Your task to perform on an android device: What's the weather going to be this weekend? Image 0: 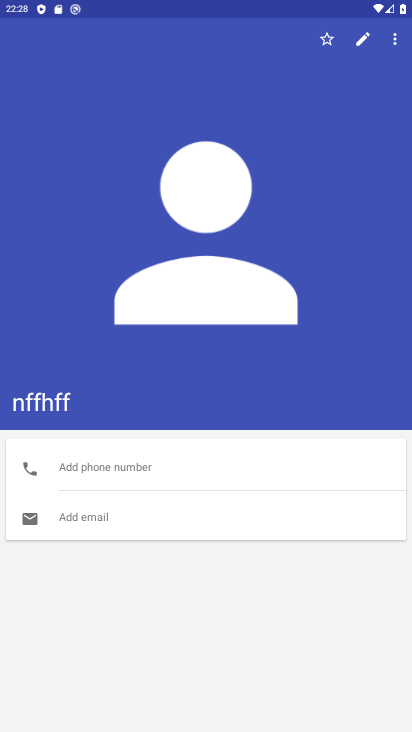
Step 0: press home button
Your task to perform on an android device: What's the weather going to be this weekend? Image 1: 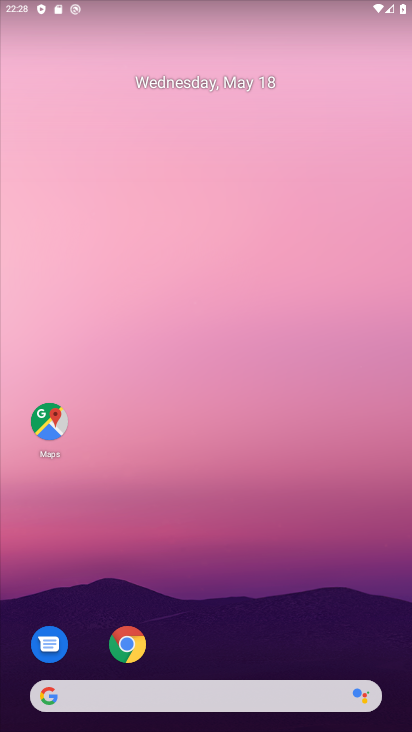
Step 1: click (132, 643)
Your task to perform on an android device: What's the weather going to be this weekend? Image 2: 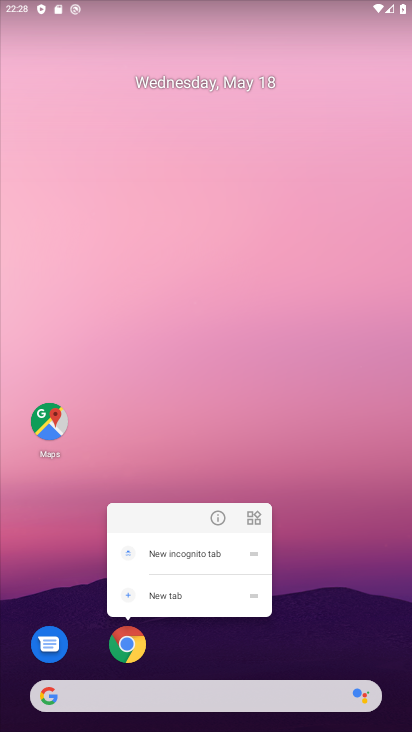
Step 2: click (132, 643)
Your task to perform on an android device: What's the weather going to be this weekend? Image 3: 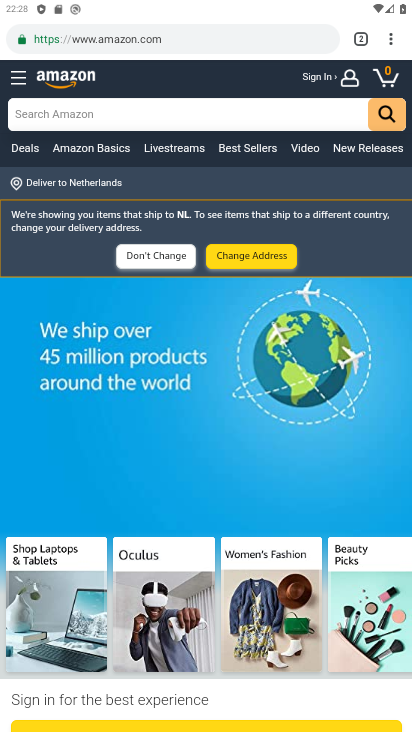
Step 3: click (238, 43)
Your task to perform on an android device: What's the weather going to be this weekend? Image 4: 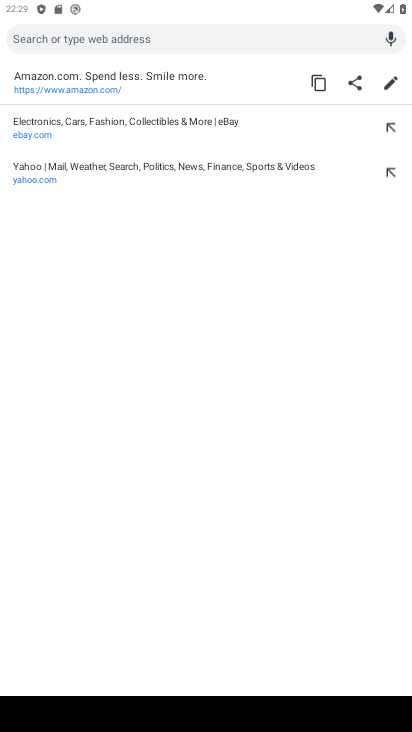
Step 4: type "weather"
Your task to perform on an android device: What's the weather going to be this weekend? Image 5: 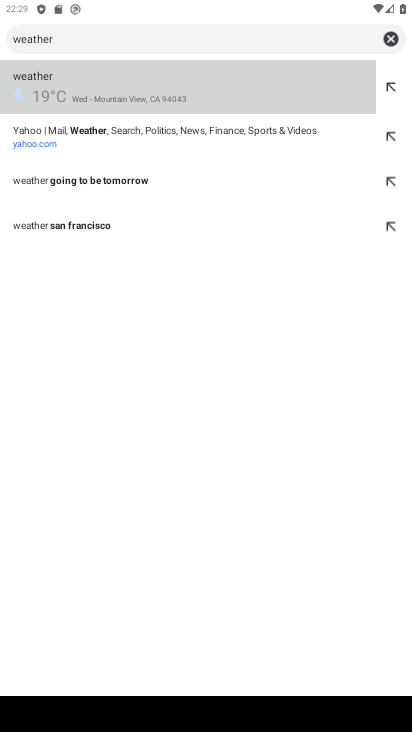
Step 5: click (45, 75)
Your task to perform on an android device: What's the weather going to be this weekend? Image 6: 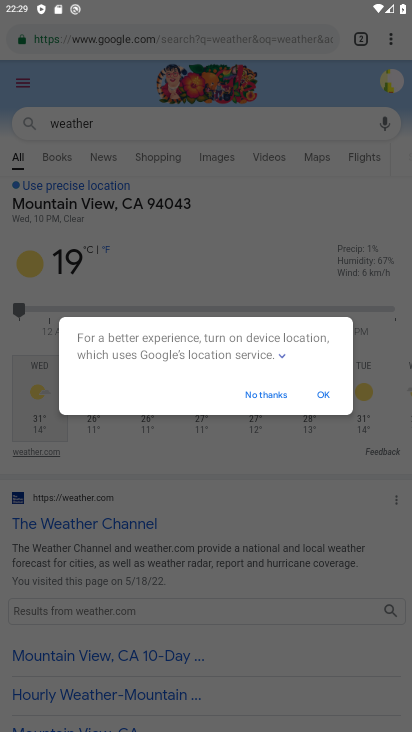
Step 6: click (335, 393)
Your task to perform on an android device: What's the weather going to be this weekend? Image 7: 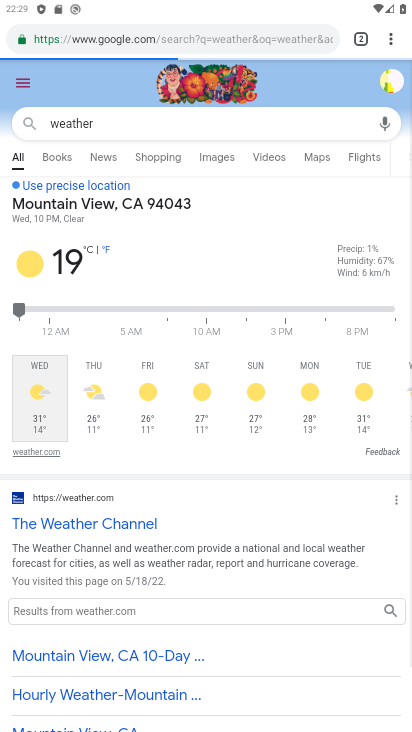
Step 7: drag from (258, 331) to (285, 224)
Your task to perform on an android device: What's the weather going to be this weekend? Image 8: 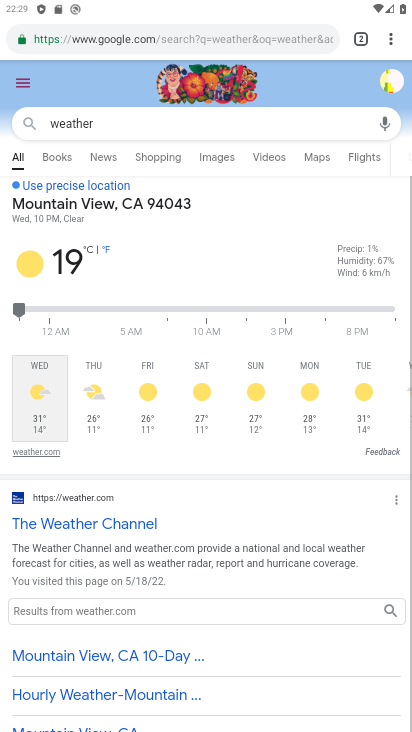
Step 8: drag from (243, 259) to (270, 3)
Your task to perform on an android device: What's the weather going to be this weekend? Image 9: 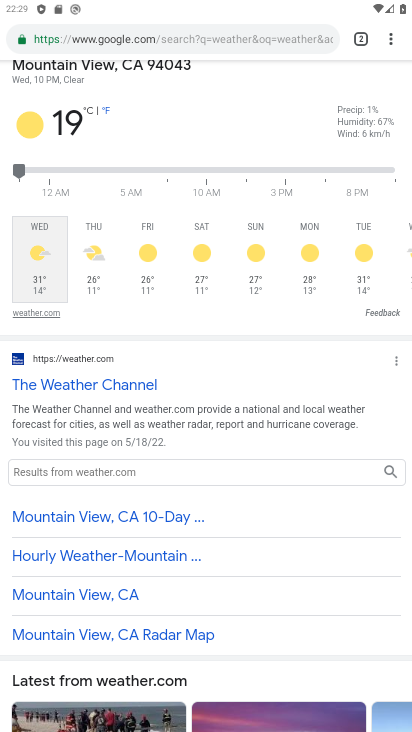
Step 9: click (203, 244)
Your task to perform on an android device: What's the weather going to be this weekend? Image 10: 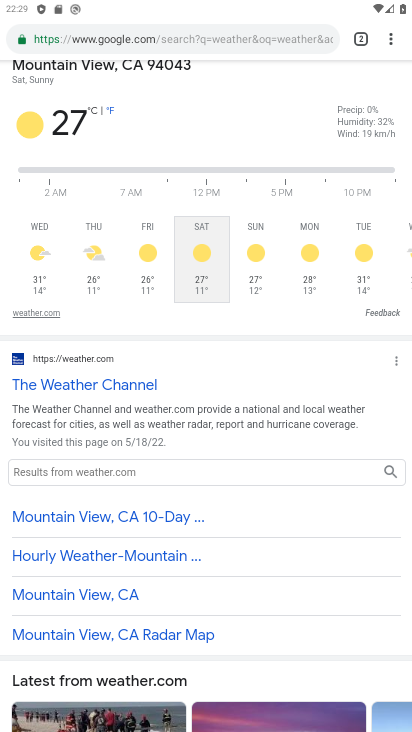
Step 10: task complete